Your task to perform on an android device: Open Amazon Image 0: 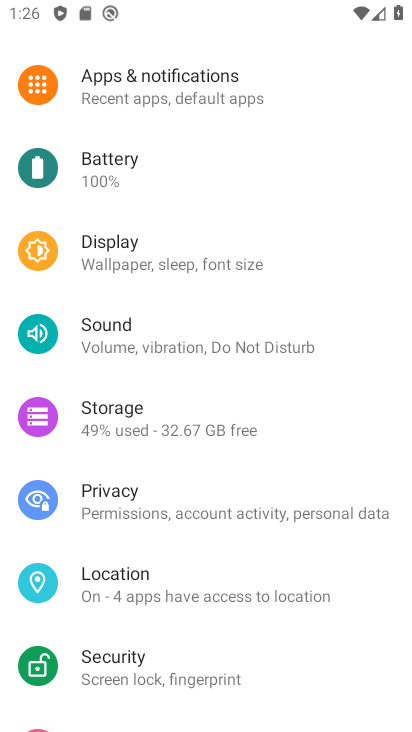
Step 0: press home button
Your task to perform on an android device: Open Amazon Image 1: 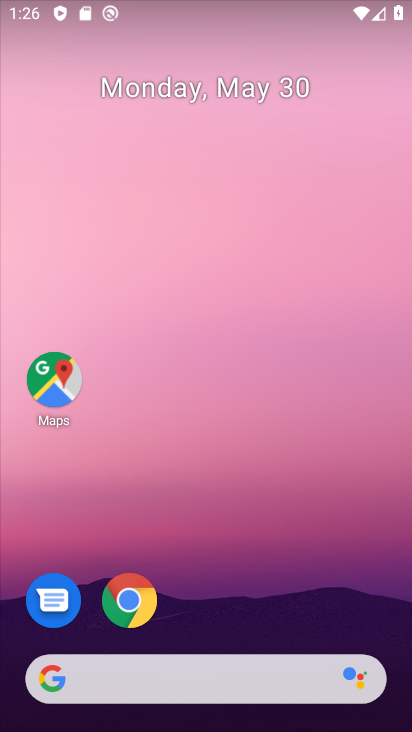
Step 1: drag from (227, 640) to (156, 90)
Your task to perform on an android device: Open Amazon Image 2: 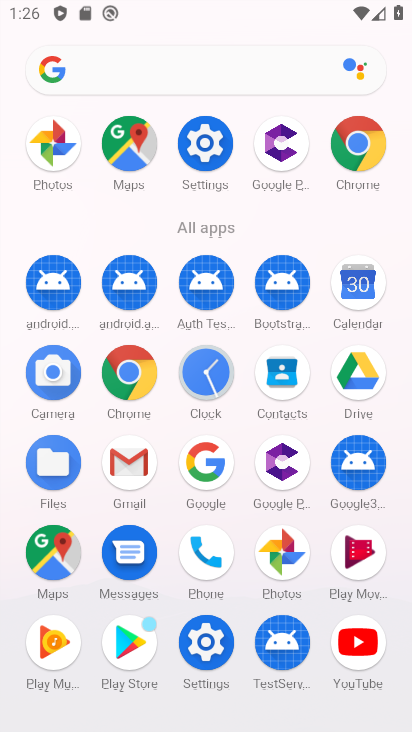
Step 2: click (360, 152)
Your task to perform on an android device: Open Amazon Image 3: 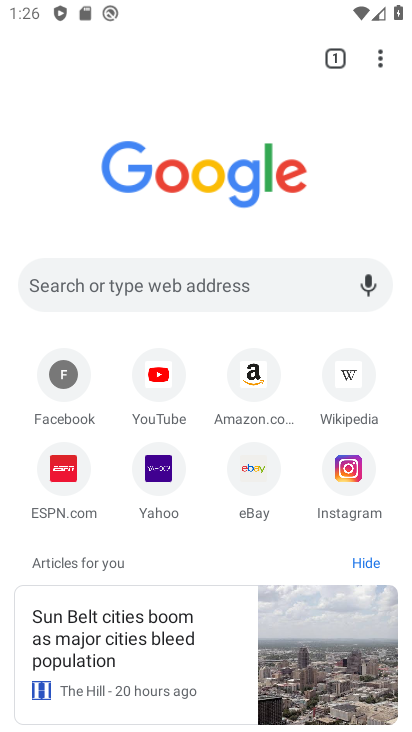
Step 3: click (237, 374)
Your task to perform on an android device: Open Amazon Image 4: 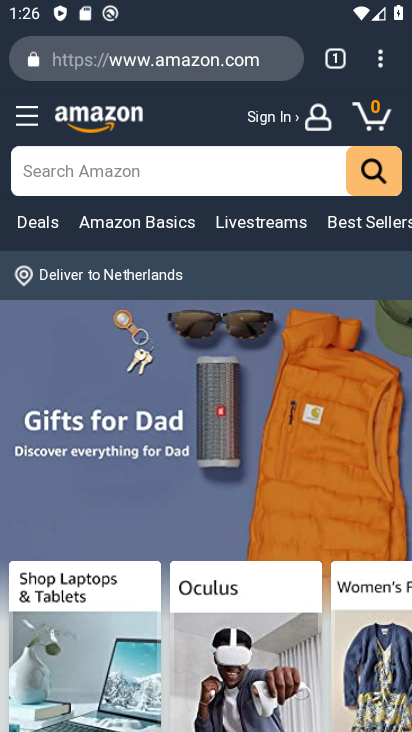
Step 4: task complete